Your task to perform on an android device: Open accessibility settings Image 0: 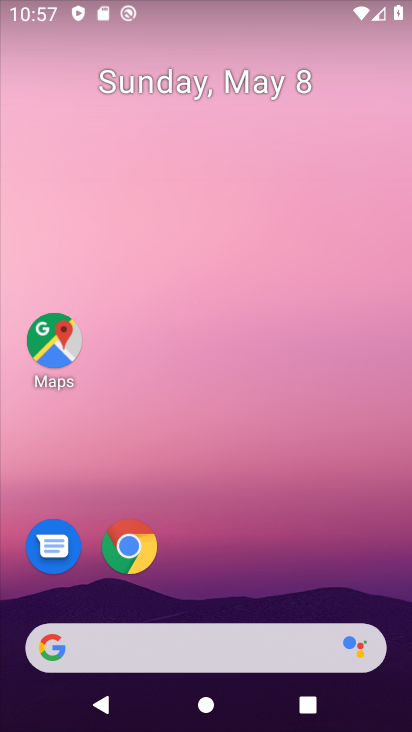
Step 0: drag from (165, 628) to (256, 268)
Your task to perform on an android device: Open accessibility settings Image 1: 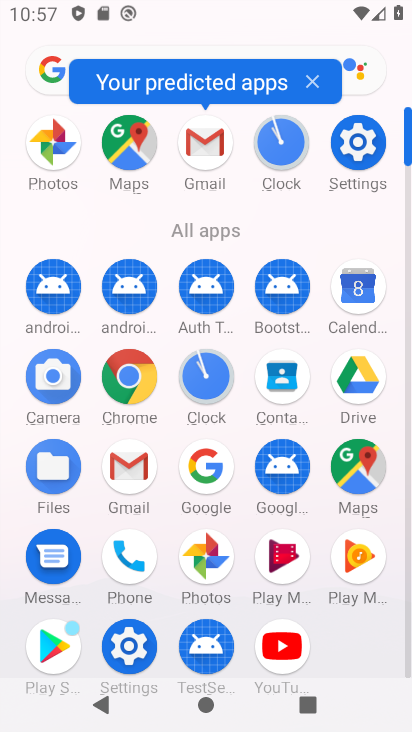
Step 1: click (128, 652)
Your task to perform on an android device: Open accessibility settings Image 2: 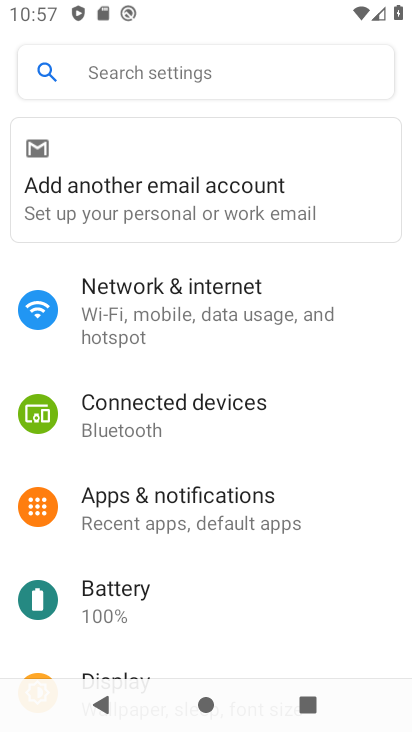
Step 2: drag from (188, 594) to (254, 407)
Your task to perform on an android device: Open accessibility settings Image 3: 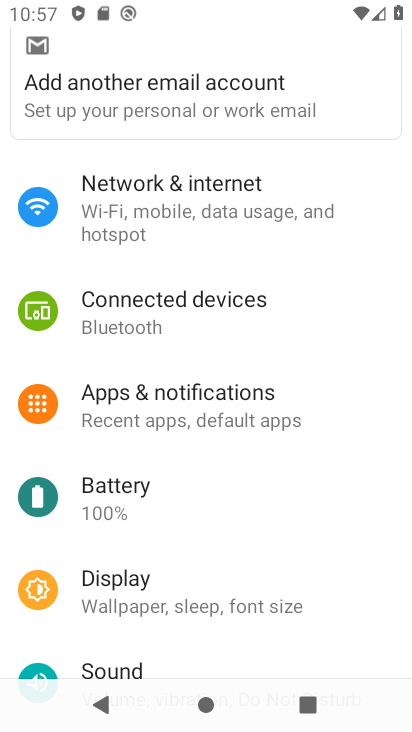
Step 3: drag from (250, 587) to (288, 408)
Your task to perform on an android device: Open accessibility settings Image 4: 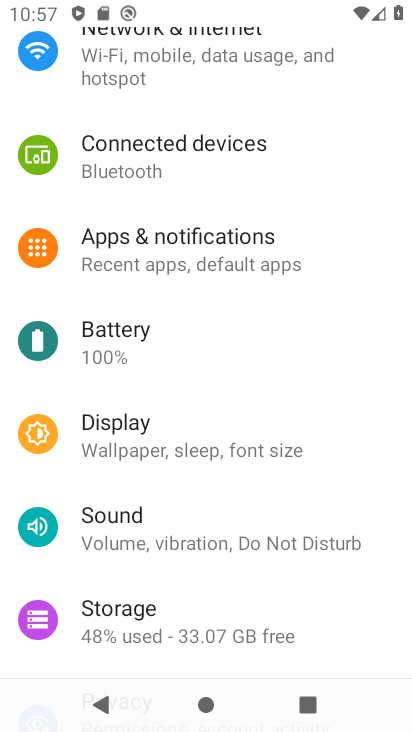
Step 4: drag from (153, 669) to (192, 492)
Your task to perform on an android device: Open accessibility settings Image 5: 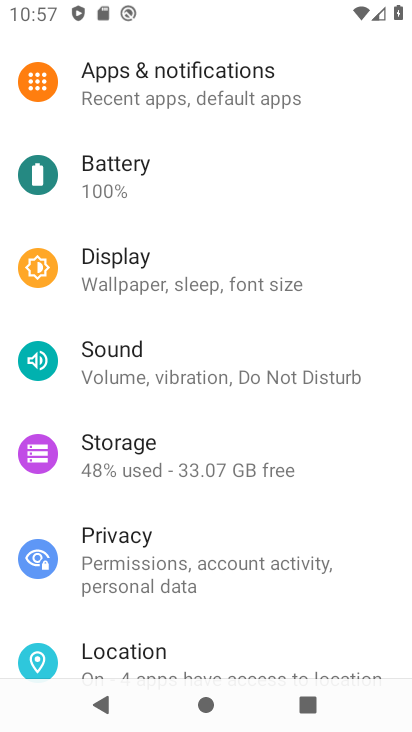
Step 5: drag from (192, 492) to (317, 87)
Your task to perform on an android device: Open accessibility settings Image 6: 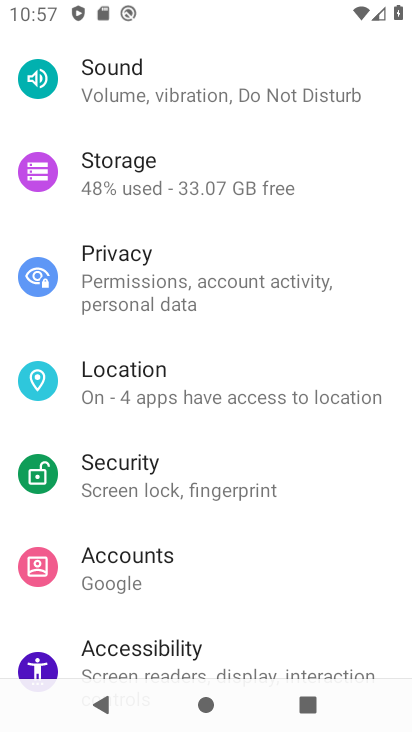
Step 6: click (210, 643)
Your task to perform on an android device: Open accessibility settings Image 7: 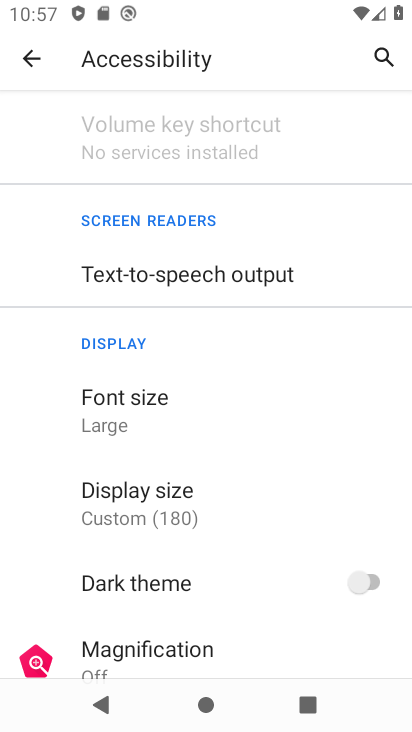
Step 7: task complete